Your task to perform on an android device: toggle wifi Image 0: 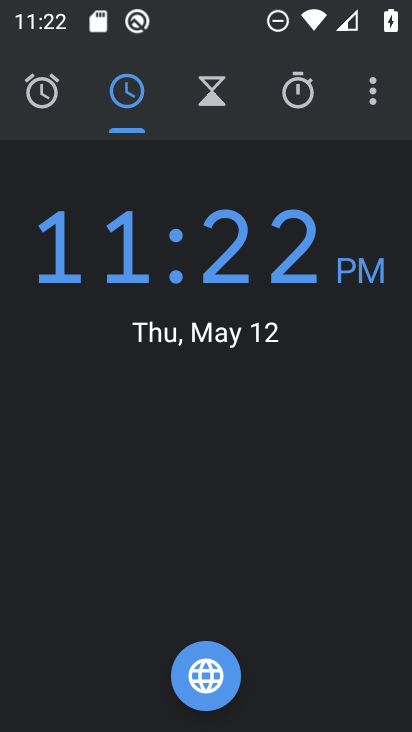
Step 0: press home button
Your task to perform on an android device: toggle wifi Image 1: 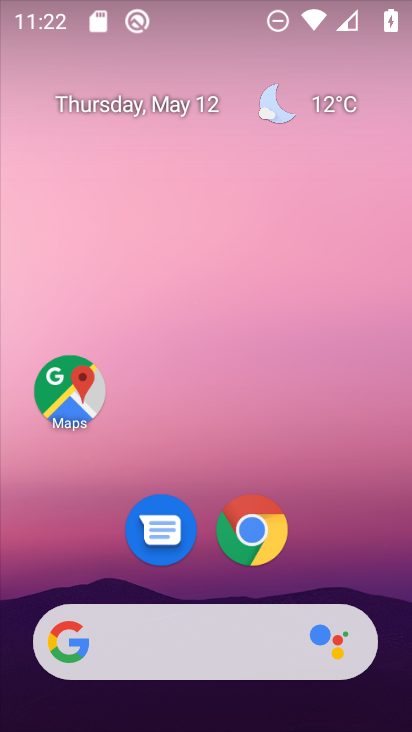
Step 1: drag from (214, 659) to (326, 113)
Your task to perform on an android device: toggle wifi Image 2: 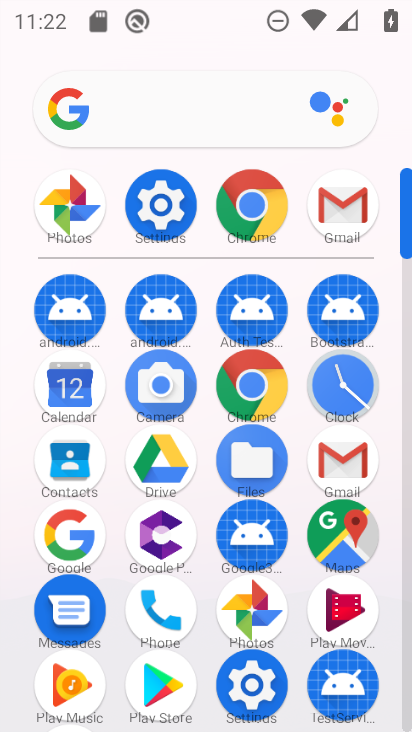
Step 2: click (159, 204)
Your task to perform on an android device: toggle wifi Image 3: 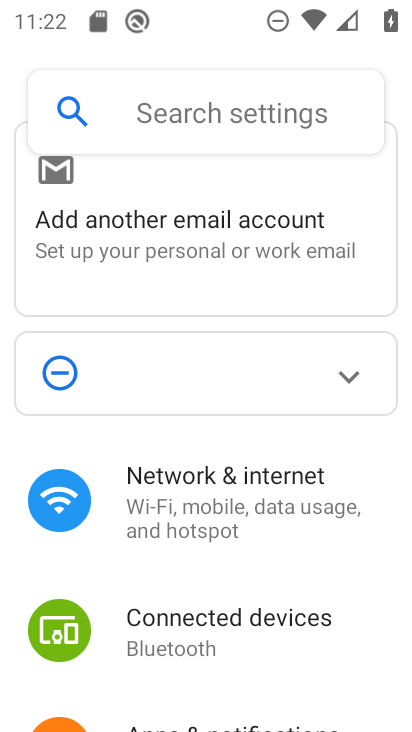
Step 3: click (255, 489)
Your task to perform on an android device: toggle wifi Image 4: 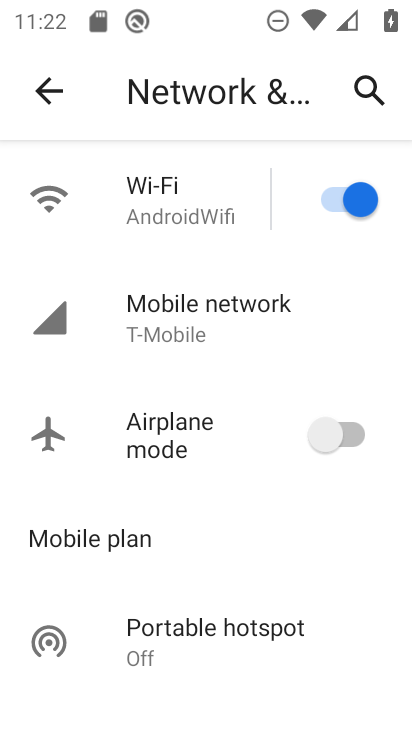
Step 4: click (338, 201)
Your task to perform on an android device: toggle wifi Image 5: 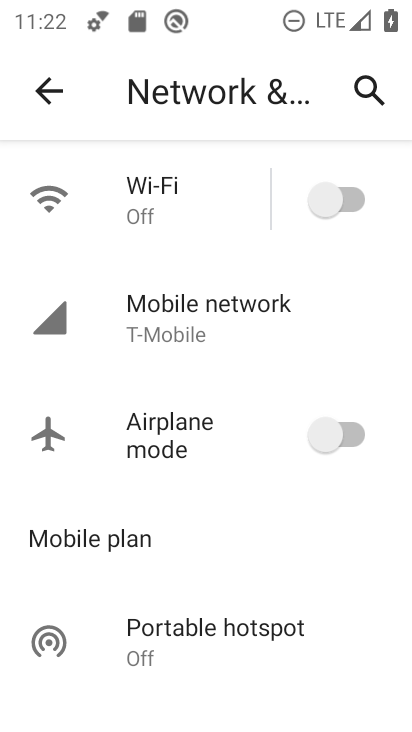
Step 5: task complete